Your task to perform on an android device: Open network settings Image 0: 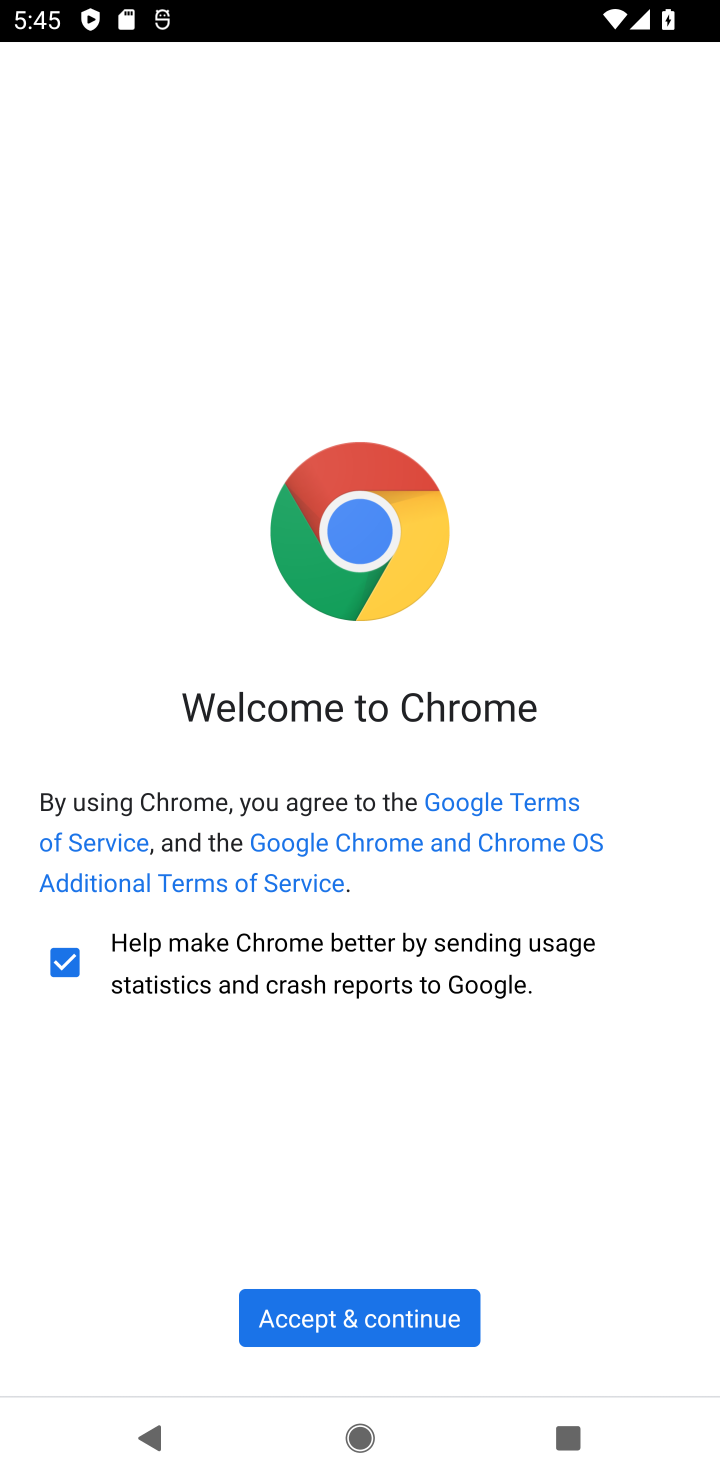
Step 0: press home button
Your task to perform on an android device: Open network settings Image 1: 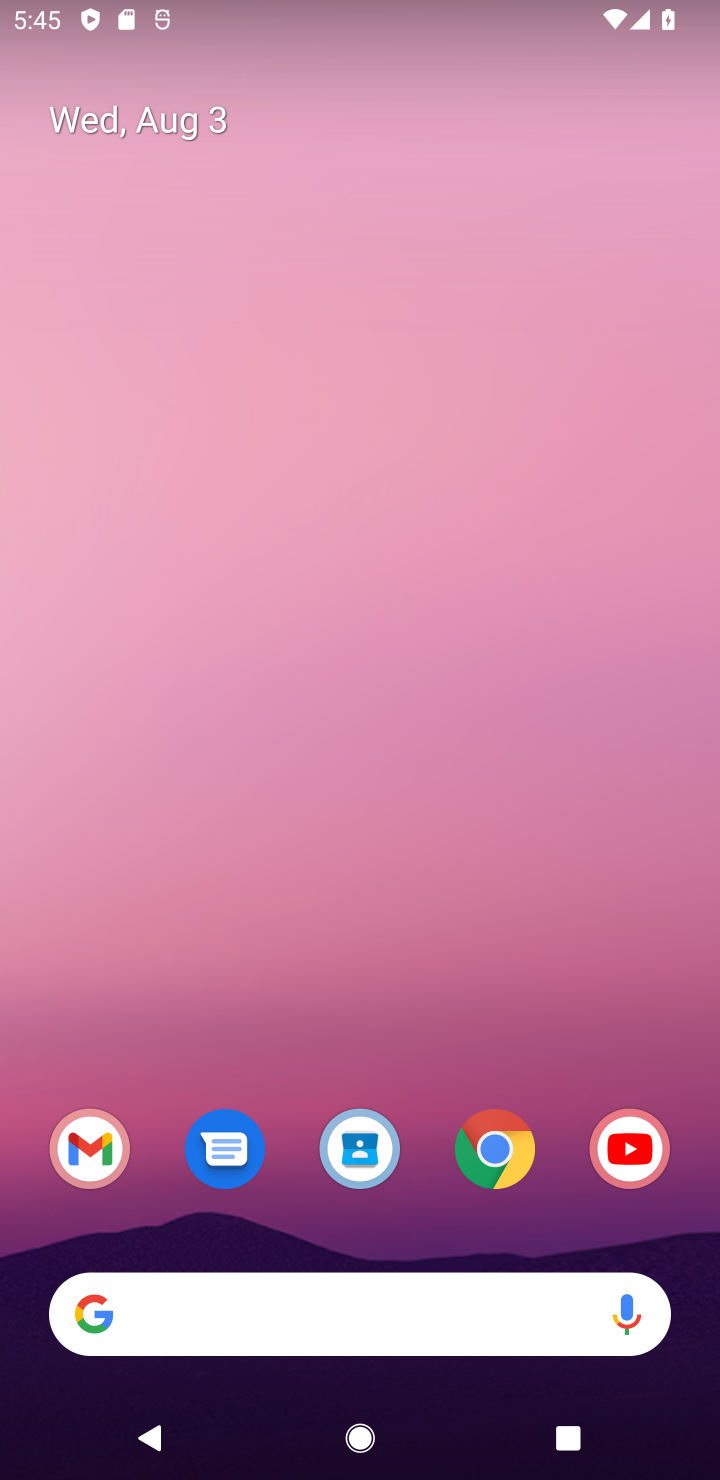
Step 1: drag from (350, 1319) to (310, 552)
Your task to perform on an android device: Open network settings Image 2: 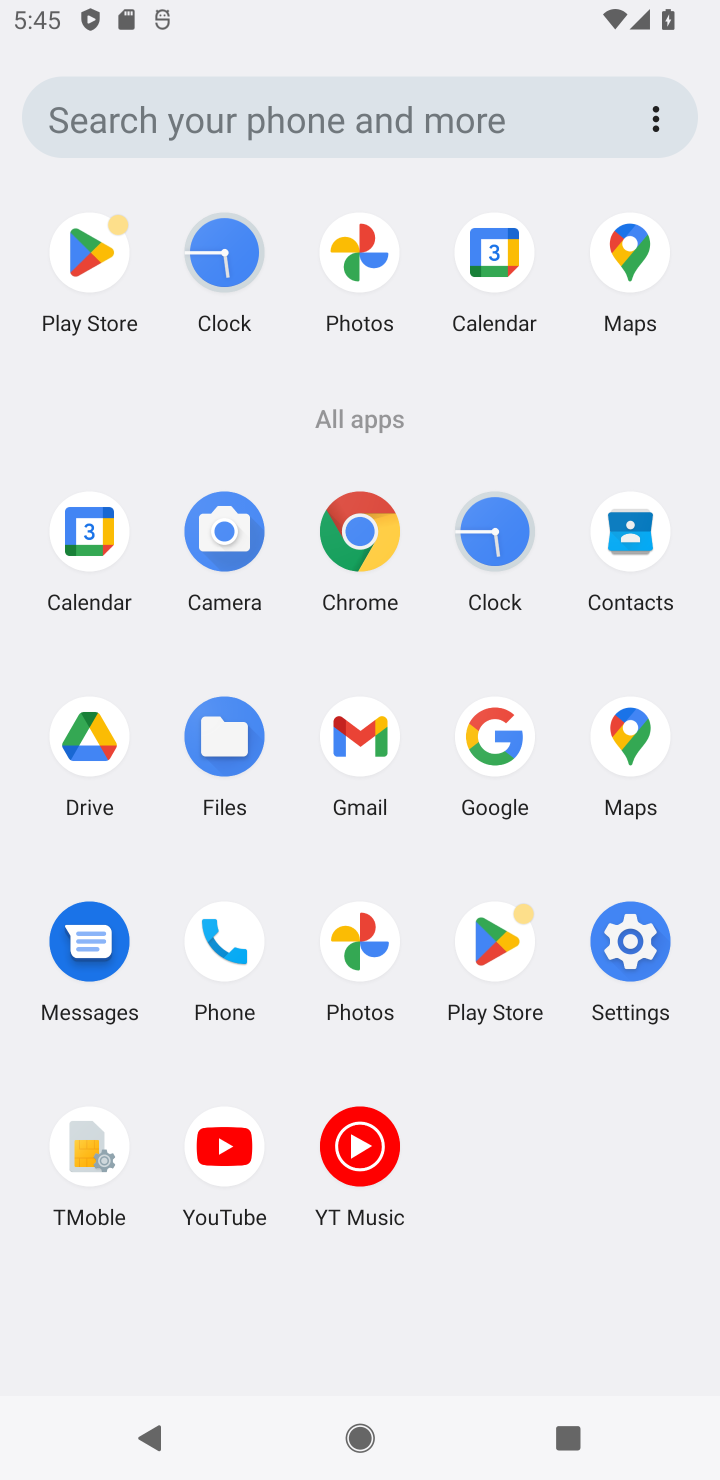
Step 2: click (638, 946)
Your task to perform on an android device: Open network settings Image 3: 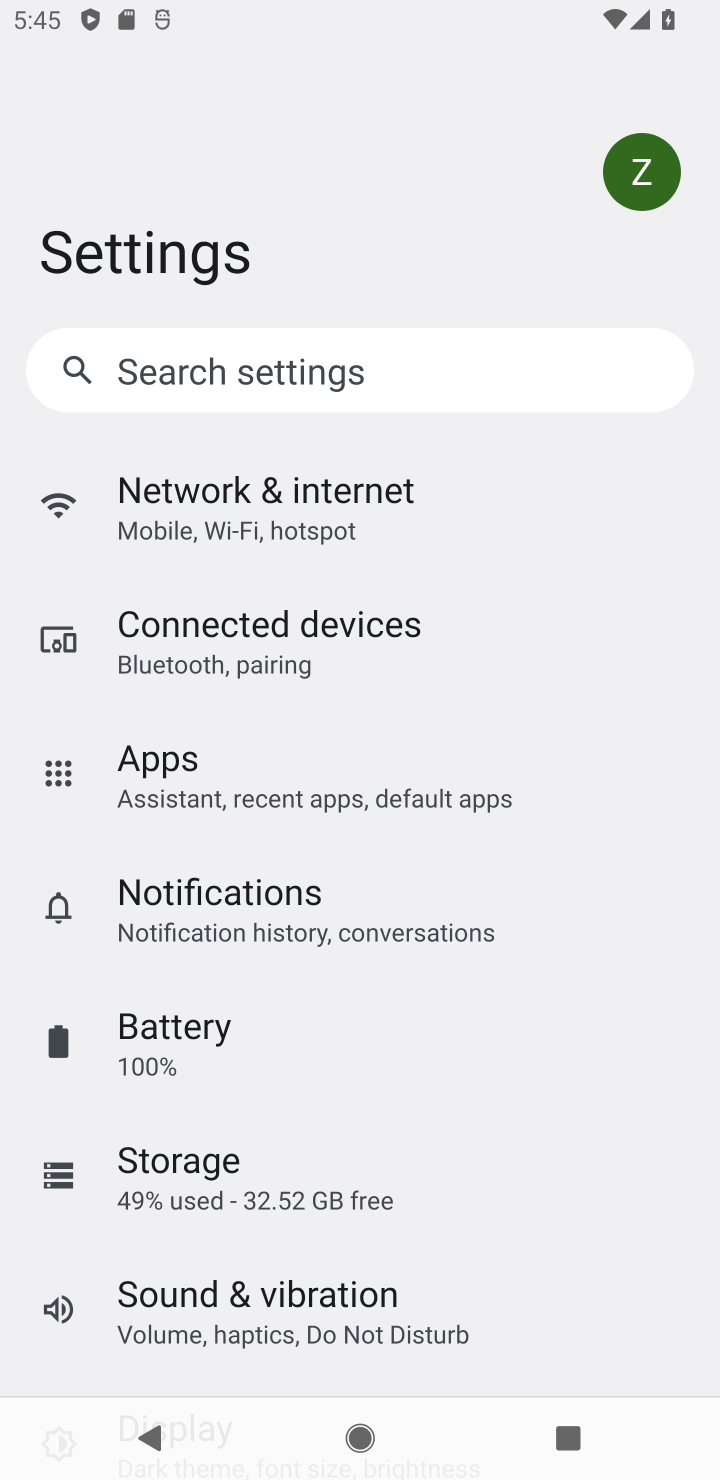
Step 3: click (295, 513)
Your task to perform on an android device: Open network settings Image 4: 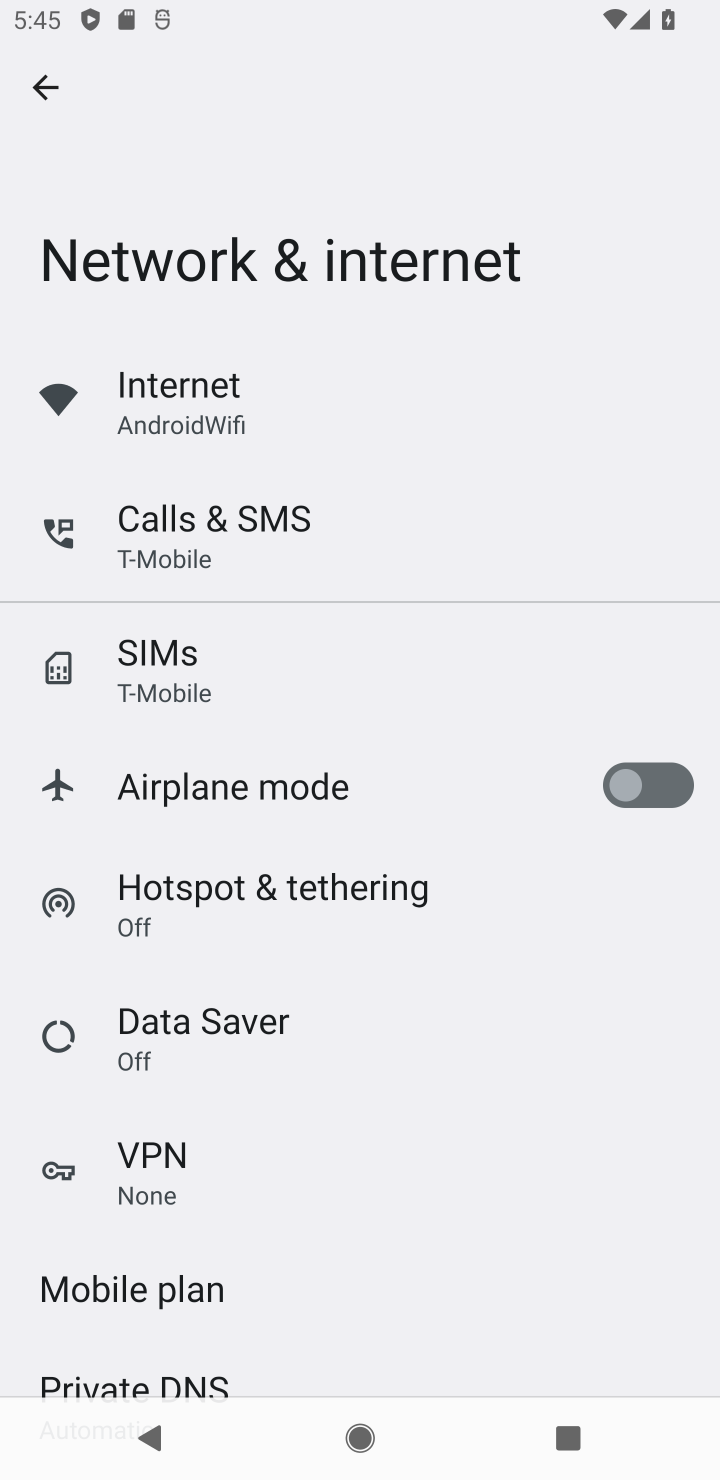
Step 4: task complete